Your task to perform on an android device: When is my next meeting? Image 0: 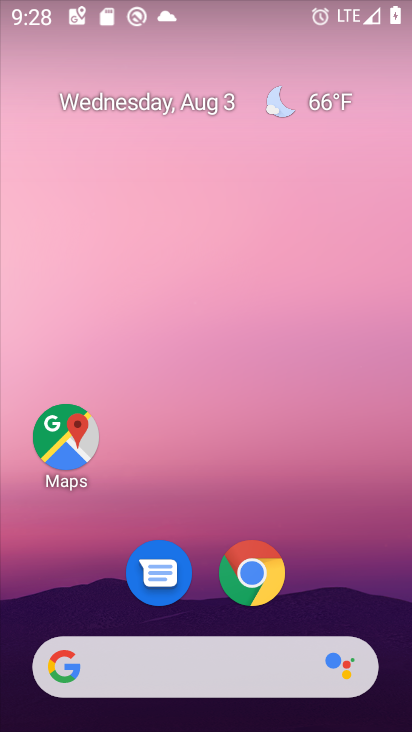
Step 0: drag from (321, 620) to (315, 19)
Your task to perform on an android device: When is my next meeting? Image 1: 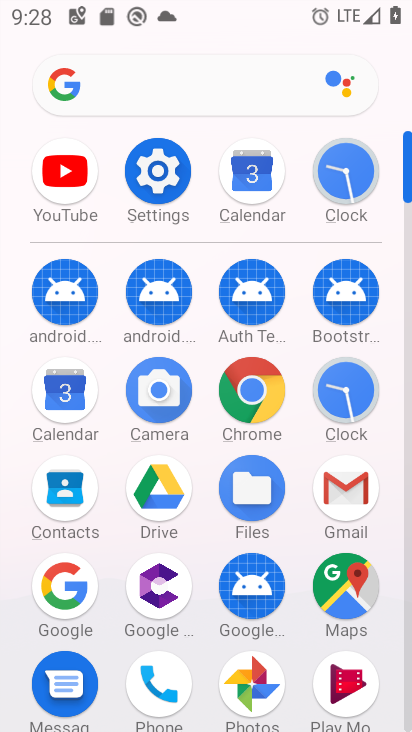
Step 1: click (236, 175)
Your task to perform on an android device: When is my next meeting? Image 2: 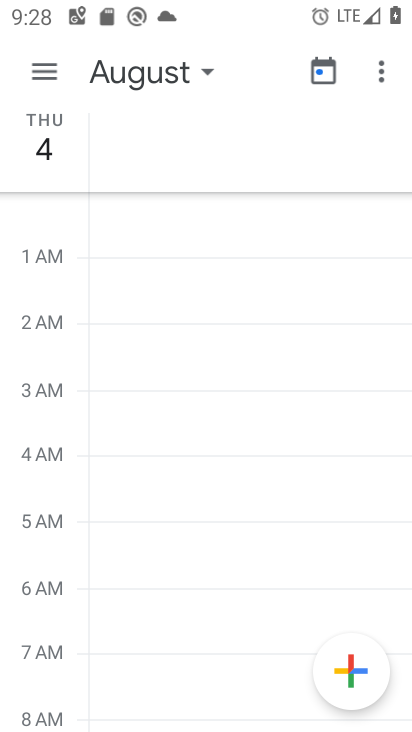
Step 2: click (39, 70)
Your task to perform on an android device: When is my next meeting? Image 3: 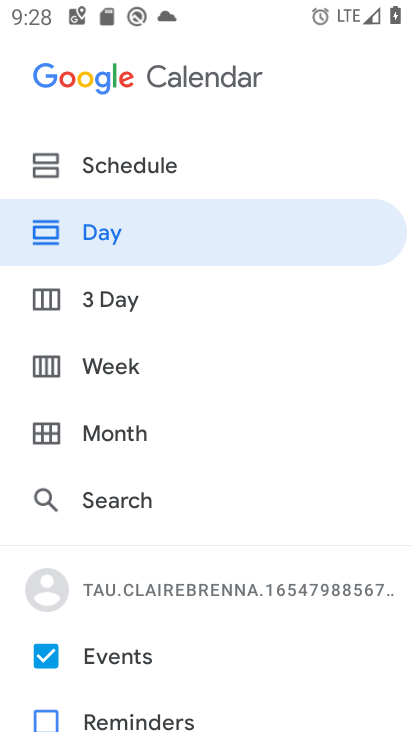
Step 3: click (80, 153)
Your task to perform on an android device: When is my next meeting? Image 4: 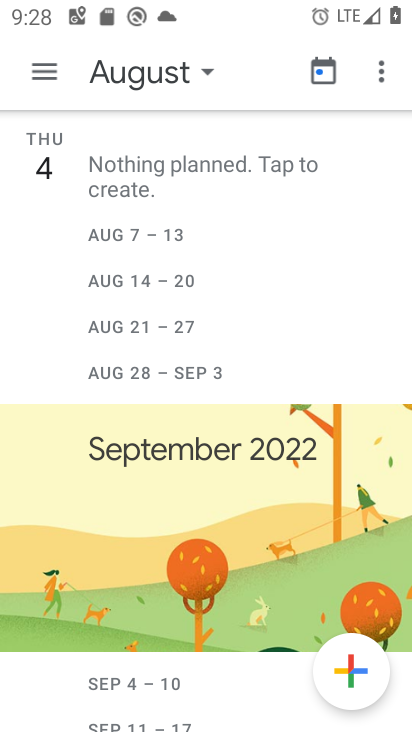
Step 4: task complete